Your task to perform on an android device: toggle pop-ups in chrome Image 0: 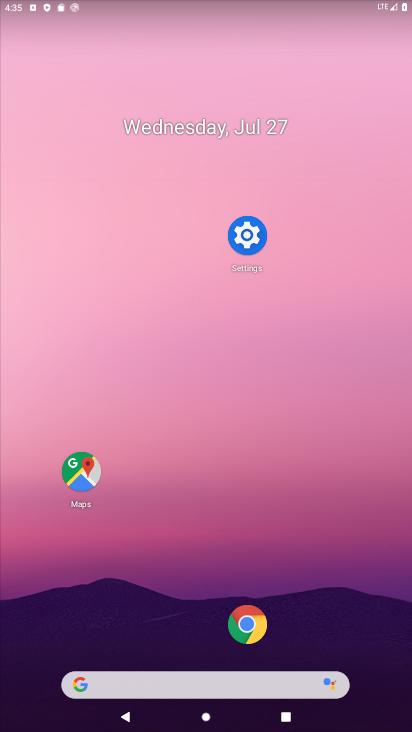
Step 0: click (250, 630)
Your task to perform on an android device: toggle pop-ups in chrome Image 1: 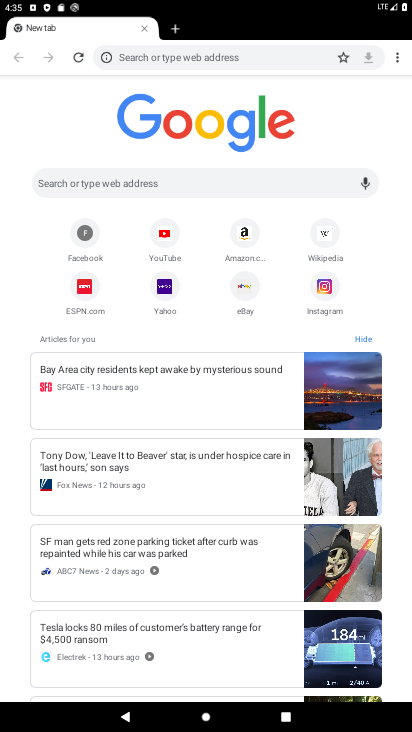
Step 1: click (405, 66)
Your task to perform on an android device: toggle pop-ups in chrome Image 2: 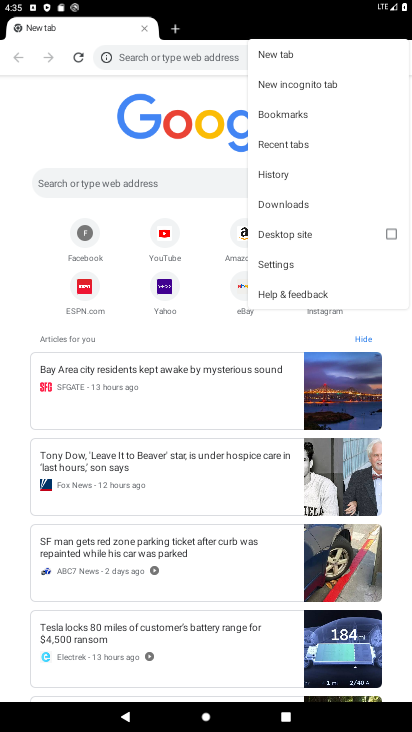
Step 2: click (277, 254)
Your task to perform on an android device: toggle pop-ups in chrome Image 3: 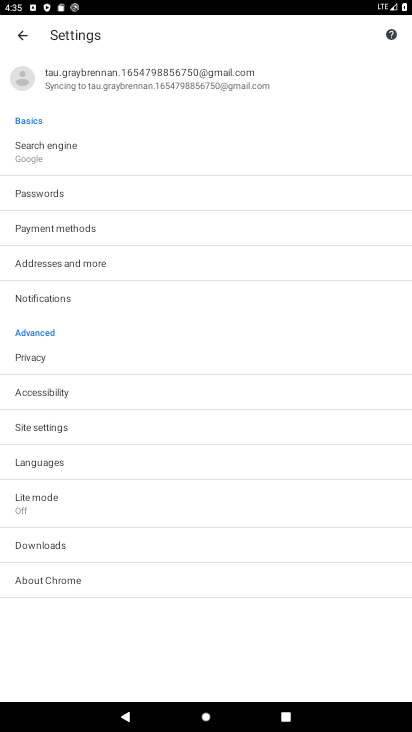
Step 3: click (76, 426)
Your task to perform on an android device: toggle pop-ups in chrome Image 4: 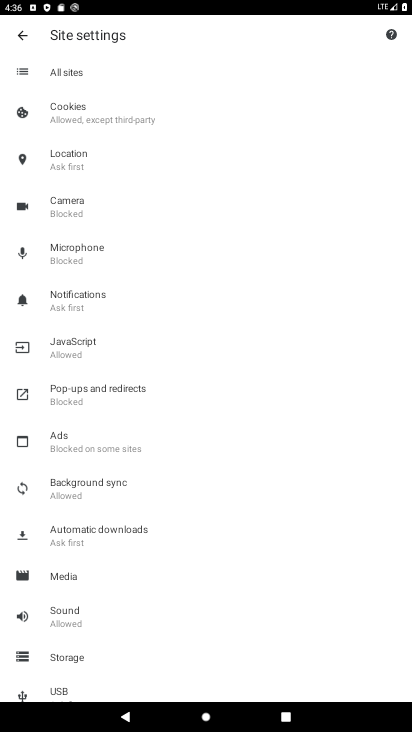
Step 4: click (109, 405)
Your task to perform on an android device: toggle pop-ups in chrome Image 5: 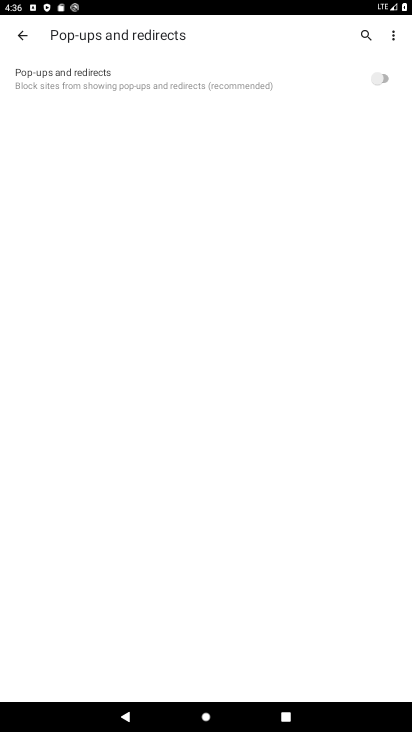
Step 5: click (381, 71)
Your task to perform on an android device: toggle pop-ups in chrome Image 6: 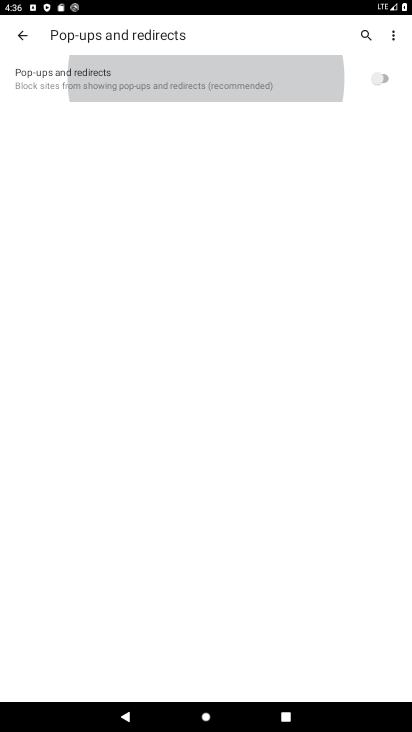
Step 6: click (381, 71)
Your task to perform on an android device: toggle pop-ups in chrome Image 7: 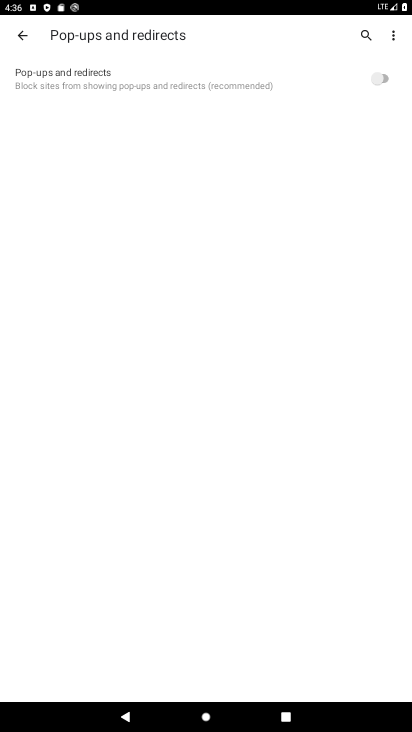
Step 7: click (381, 71)
Your task to perform on an android device: toggle pop-ups in chrome Image 8: 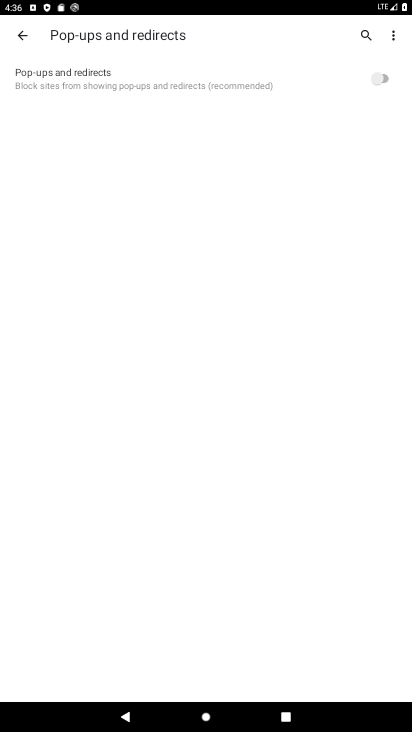
Step 8: click (381, 71)
Your task to perform on an android device: toggle pop-ups in chrome Image 9: 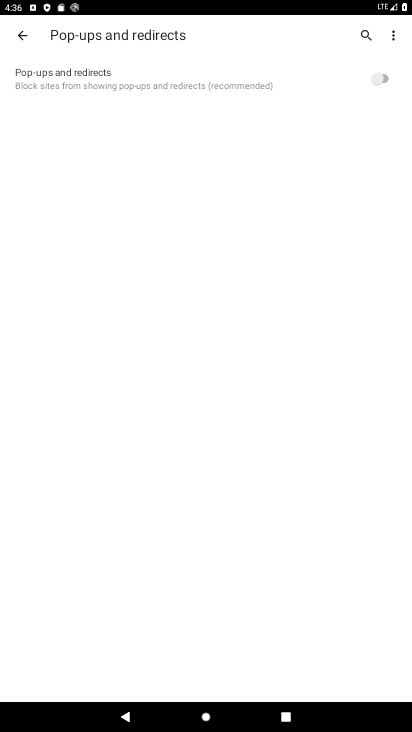
Step 9: click (381, 71)
Your task to perform on an android device: toggle pop-ups in chrome Image 10: 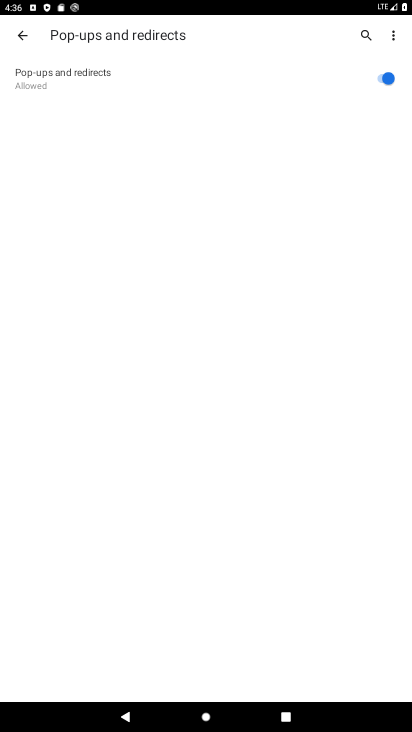
Step 10: click (381, 71)
Your task to perform on an android device: toggle pop-ups in chrome Image 11: 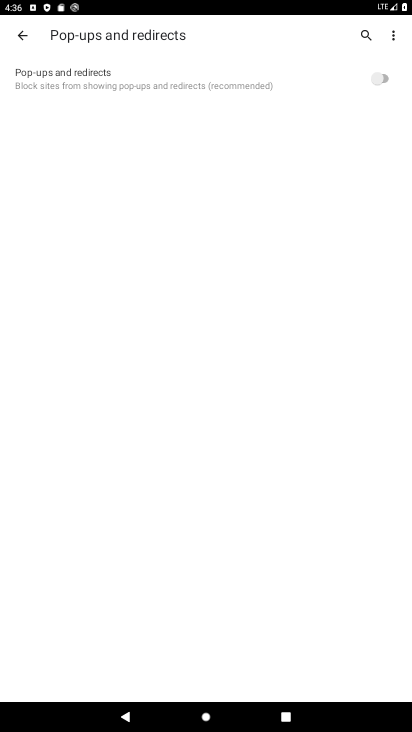
Step 11: task complete